Your task to perform on an android device: open chrome and create a bookmark for the current page Image 0: 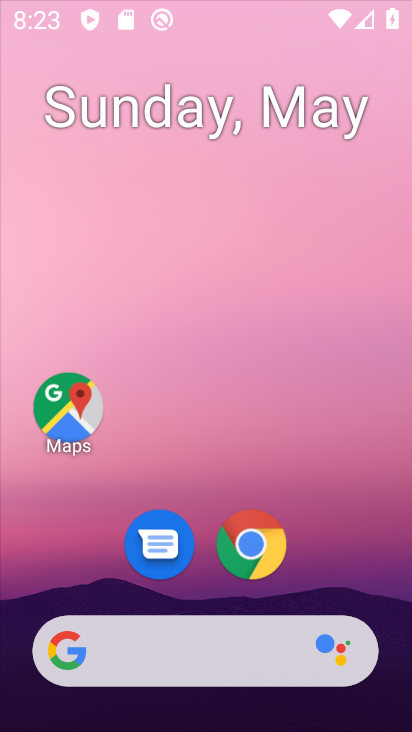
Step 0: click (388, 22)
Your task to perform on an android device: open chrome and create a bookmark for the current page Image 1: 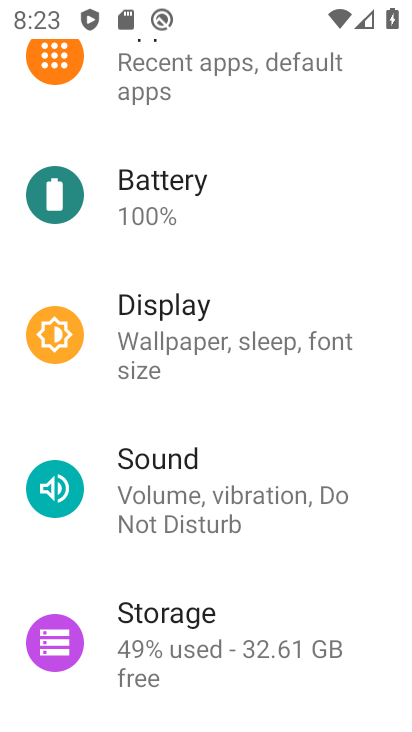
Step 1: press home button
Your task to perform on an android device: open chrome and create a bookmark for the current page Image 2: 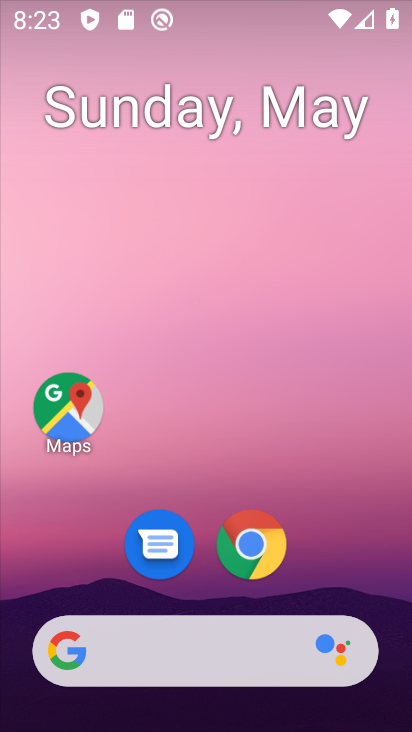
Step 2: drag from (369, 527) to (397, 37)
Your task to perform on an android device: open chrome and create a bookmark for the current page Image 3: 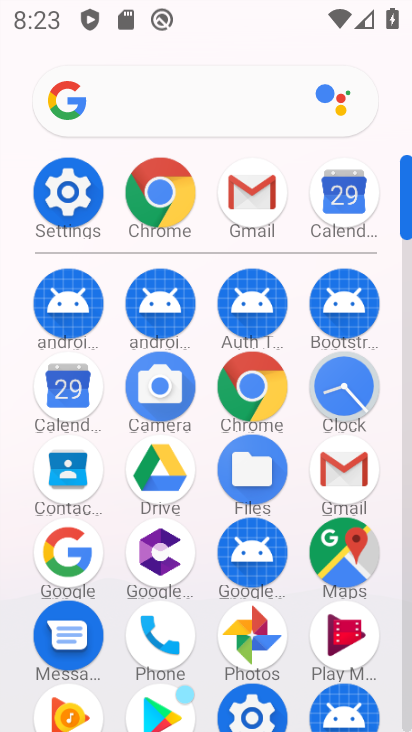
Step 3: click (164, 205)
Your task to perform on an android device: open chrome and create a bookmark for the current page Image 4: 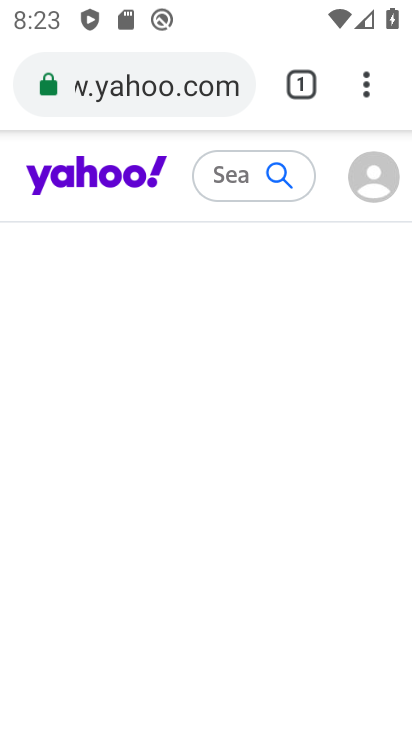
Step 4: task complete